Your task to perform on an android device: turn off priority inbox in the gmail app Image 0: 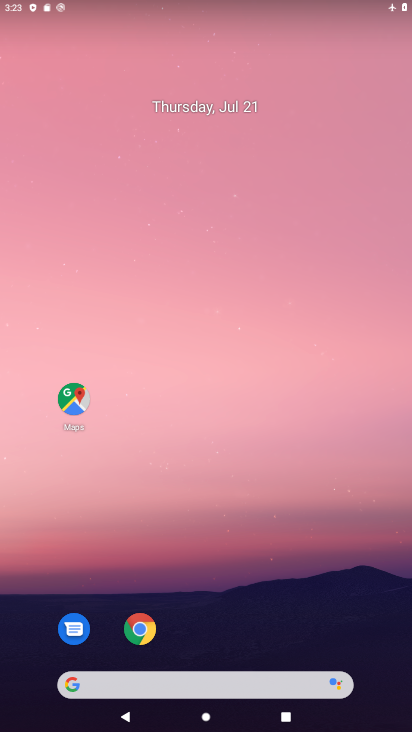
Step 0: drag from (267, 636) to (278, 261)
Your task to perform on an android device: turn off priority inbox in the gmail app Image 1: 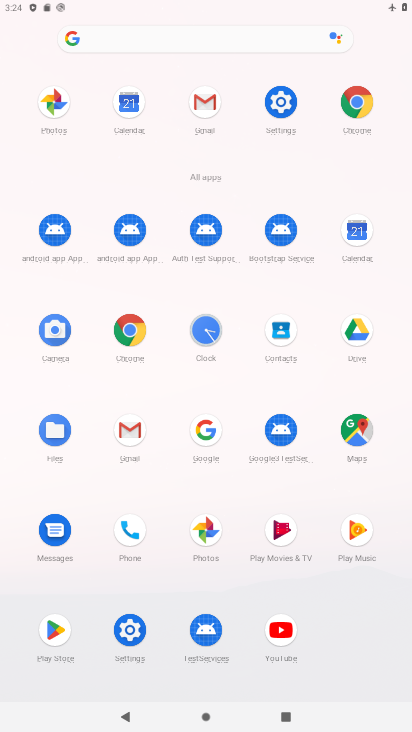
Step 1: click (134, 423)
Your task to perform on an android device: turn off priority inbox in the gmail app Image 2: 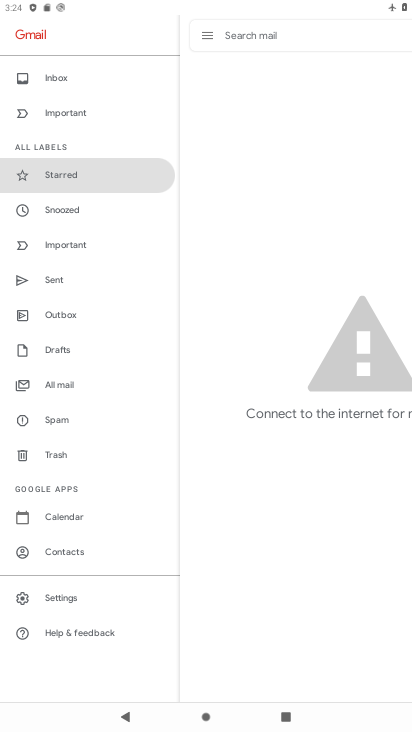
Step 2: click (206, 32)
Your task to perform on an android device: turn off priority inbox in the gmail app Image 3: 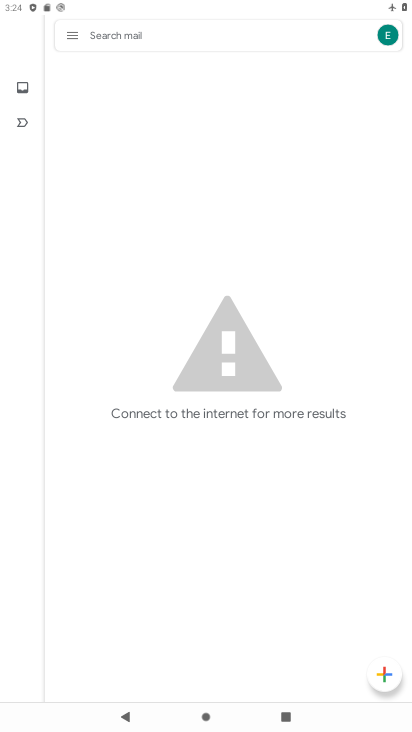
Step 3: click (70, 30)
Your task to perform on an android device: turn off priority inbox in the gmail app Image 4: 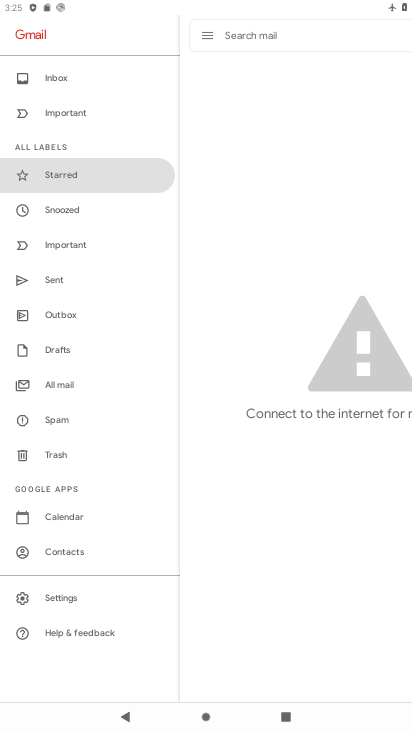
Step 4: click (85, 602)
Your task to perform on an android device: turn off priority inbox in the gmail app Image 5: 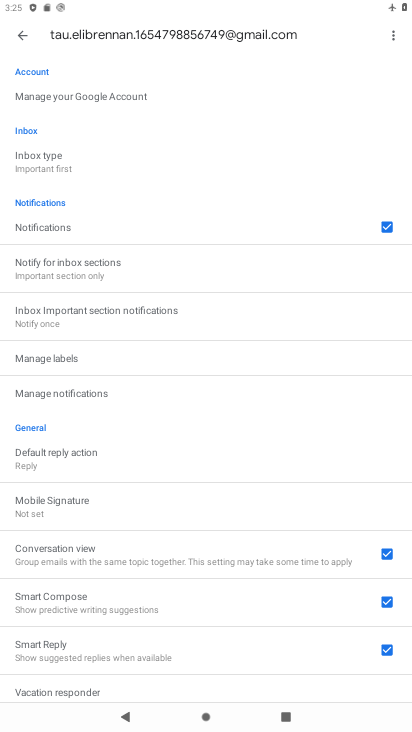
Step 5: click (56, 158)
Your task to perform on an android device: turn off priority inbox in the gmail app Image 6: 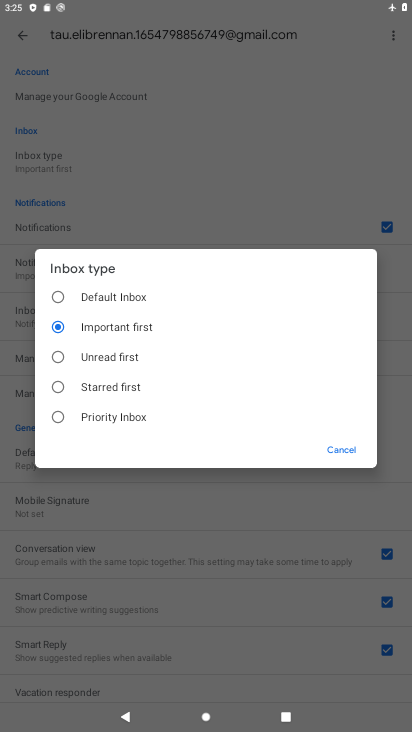
Step 6: task complete